Your task to perform on an android device: Open display settings Image 0: 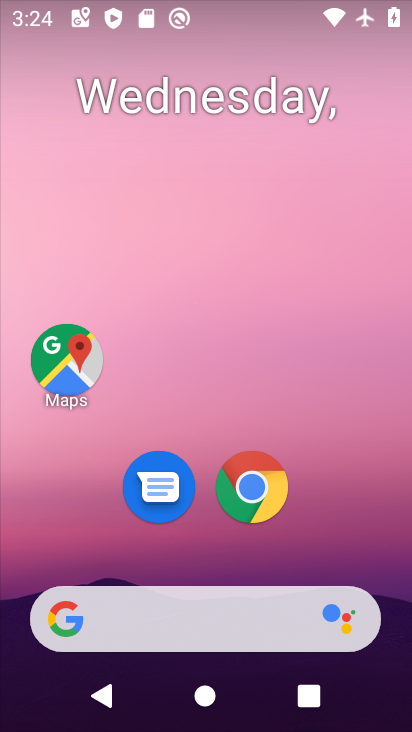
Step 0: drag from (339, 515) to (182, 3)
Your task to perform on an android device: Open display settings Image 1: 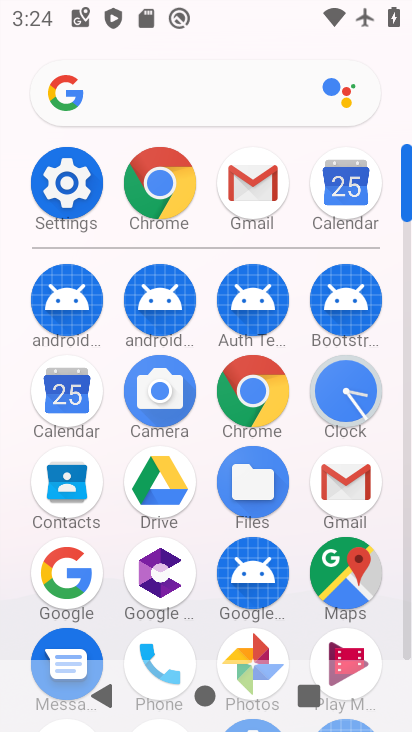
Step 1: click (38, 216)
Your task to perform on an android device: Open display settings Image 2: 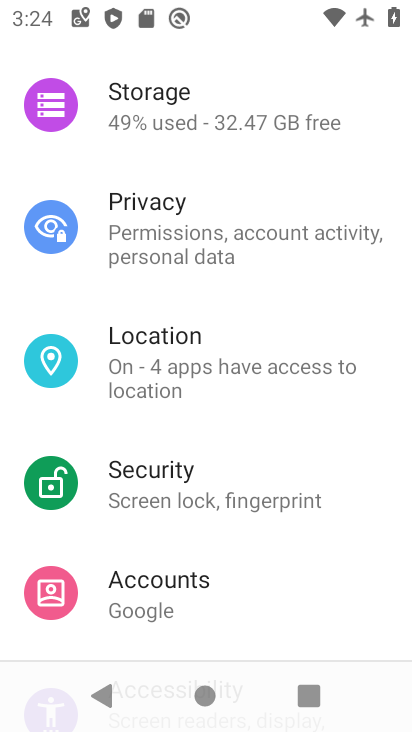
Step 2: drag from (235, 145) to (237, 531)
Your task to perform on an android device: Open display settings Image 3: 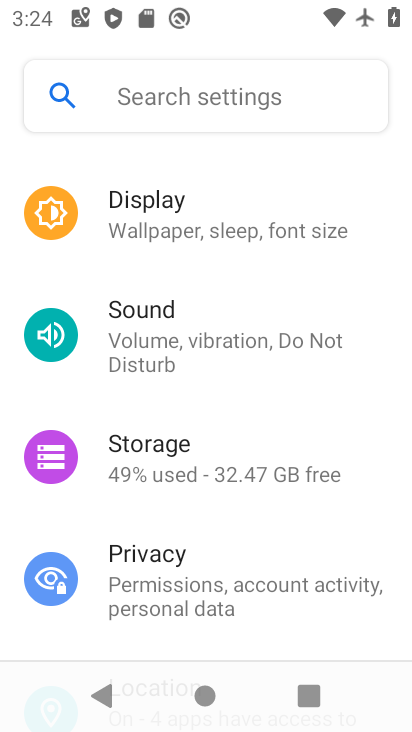
Step 3: click (208, 233)
Your task to perform on an android device: Open display settings Image 4: 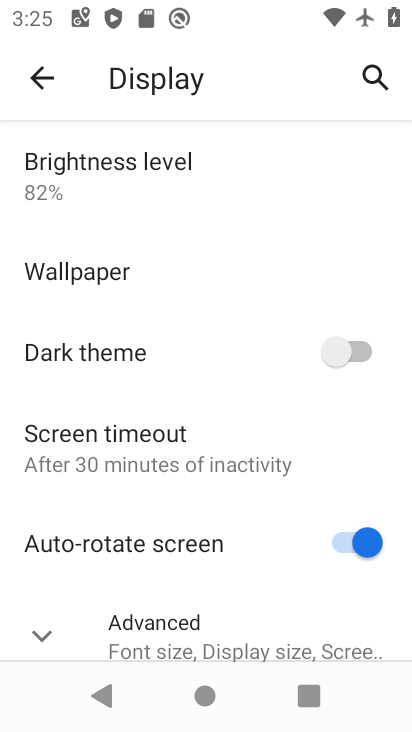
Step 4: task complete